Your task to perform on an android device: make emails show in primary in the gmail app Image 0: 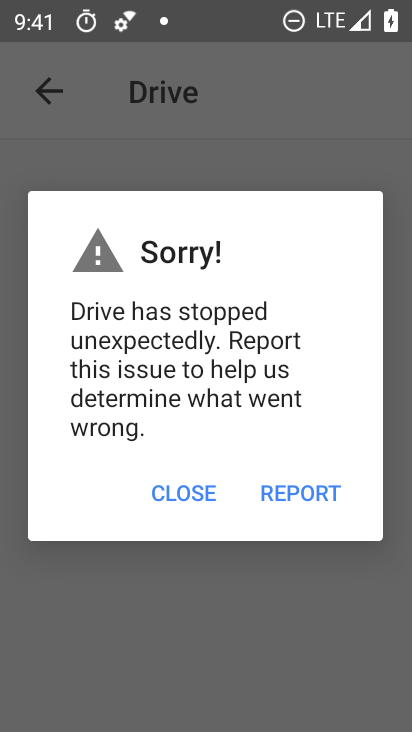
Step 0: press home button
Your task to perform on an android device: make emails show in primary in the gmail app Image 1: 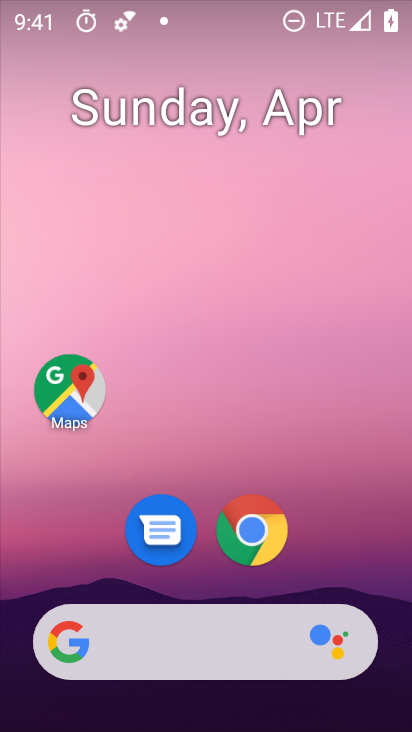
Step 1: drag from (388, 597) to (410, 663)
Your task to perform on an android device: make emails show in primary in the gmail app Image 2: 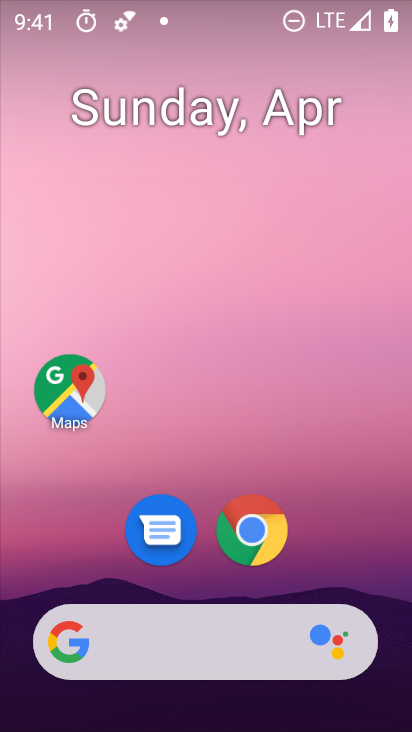
Step 2: drag from (402, 435) to (379, 0)
Your task to perform on an android device: make emails show in primary in the gmail app Image 3: 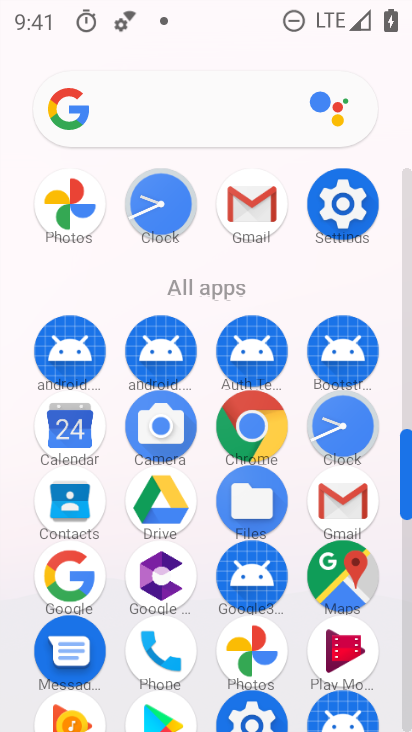
Step 3: click (251, 210)
Your task to perform on an android device: make emails show in primary in the gmail app Image 4: 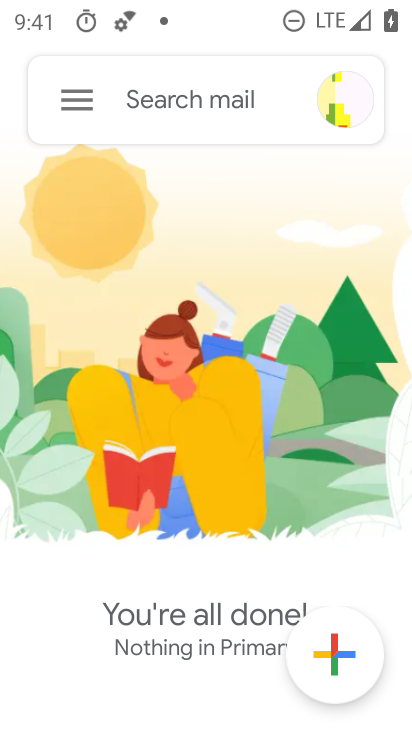
Step 4: click (70, 106)
Your task to perform on an android device: make emails show in primary in the gmail app Image 5: 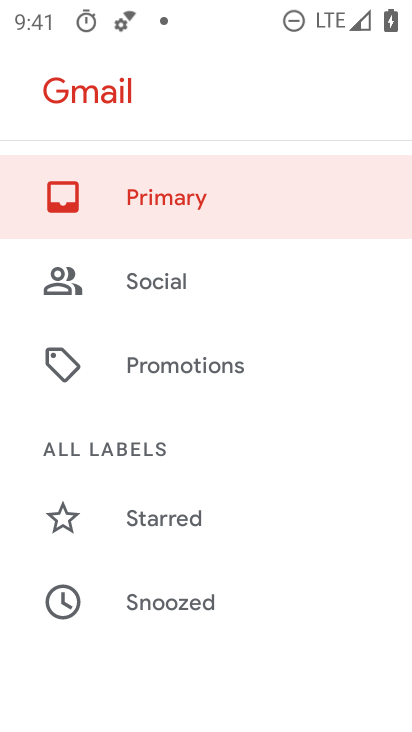
Step 5: drag from (241, 432) to (230, 105)
Your task to perform on an android device: make emails show in primary in the gmail app Image 6: 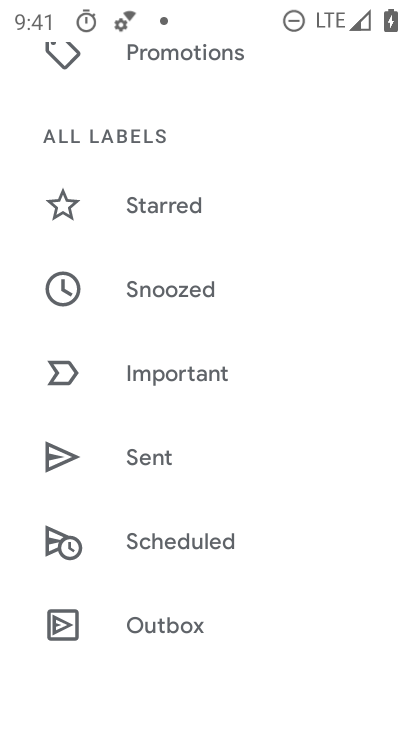
Step 6: drag from (340, 552) to (335, 182)
Your task to perform on an android device: make emails show in primary in the gmail app Image 7: 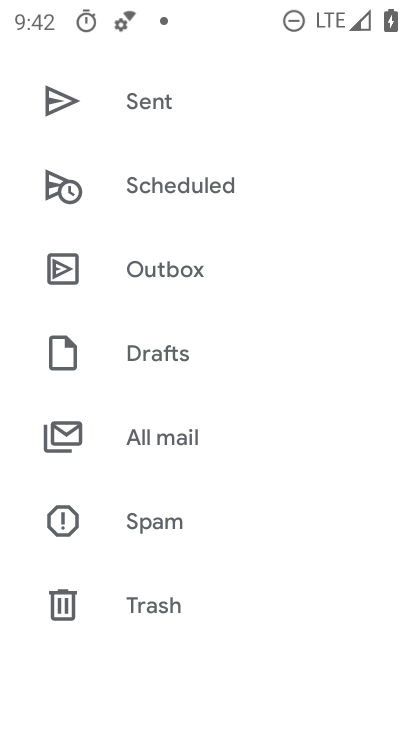
Step 7: drag from (235, 600) to (239, 161)
Your task to perform on an android device: make emails show in primary in the gmail app Image 8: 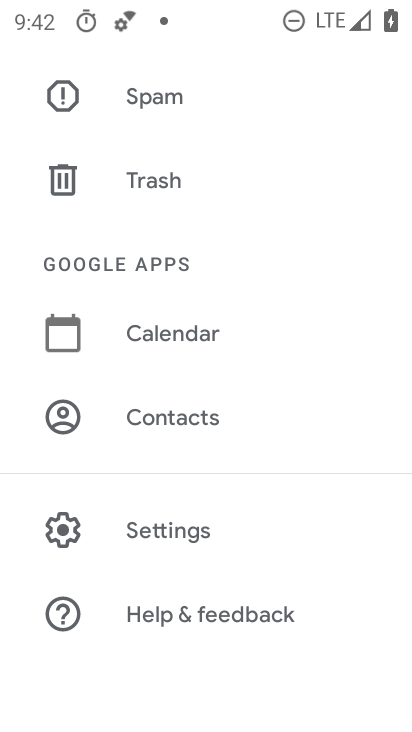
Step 8: click (182, 531)
Your task to perform on an android device: make emails show in primary in the gmail app Image 9: 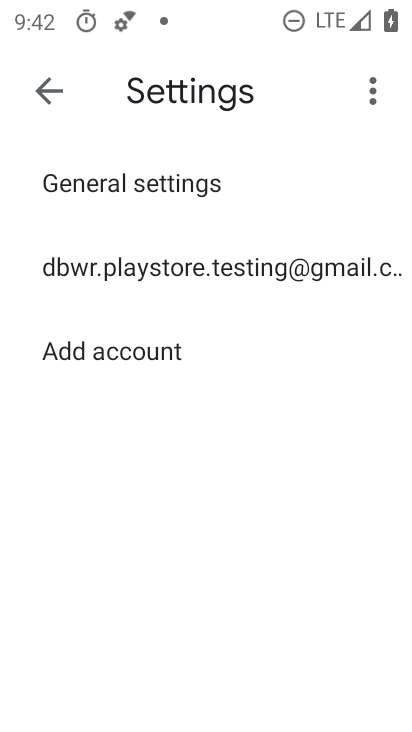
Step 9: click (144, 266)
Your task to perform on an android device: make emails show in primary in the gmail app Image 10: 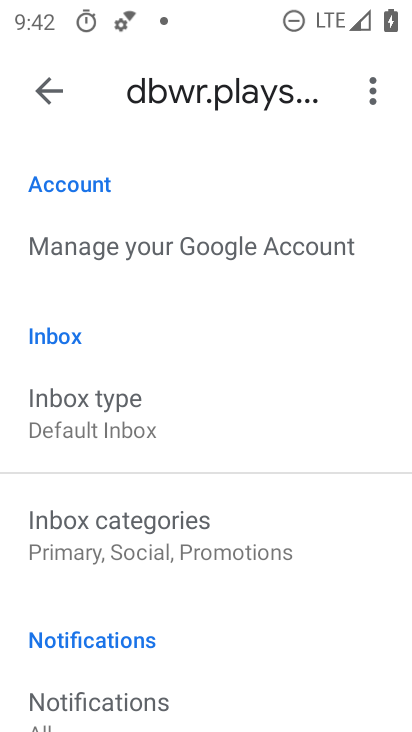
Step 10: click (127, 543)
Your task to perform on an android device: make emails show in primary in the gmail app Image 11: 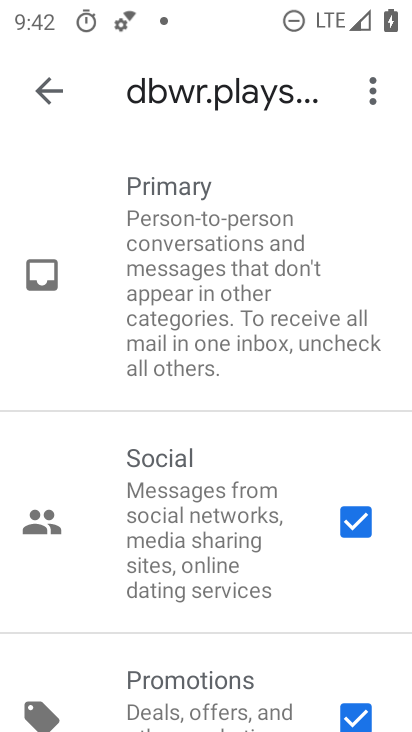
Step 11: click (347, 526)
Your task to perform on an android device: make emails show in primary in the gmail app Image 12: 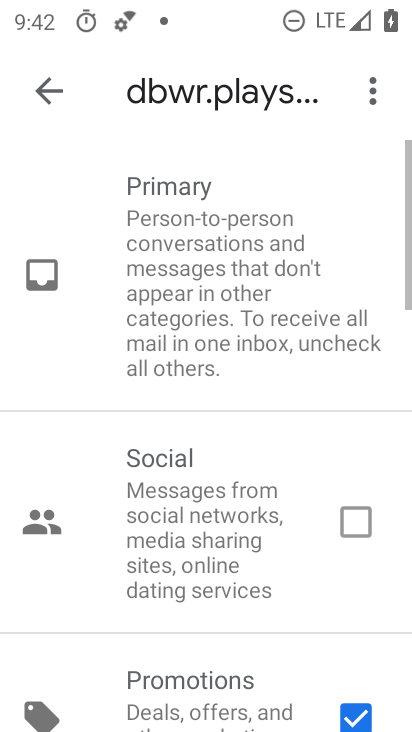
Step 12: drag from (166, 581) to (188, 247)
Your task to perform on an android device: make emails show in primary in the gmail app Image 13: 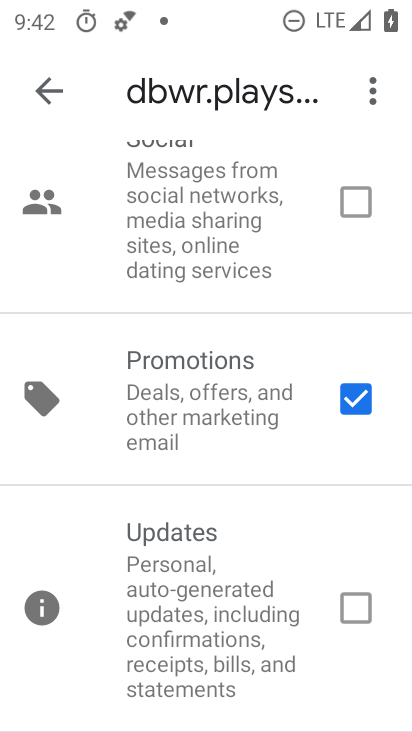
Step 13: click (362, 397)
Your task to perform on an android device: make emails show in primary in the gmail app Image 14: 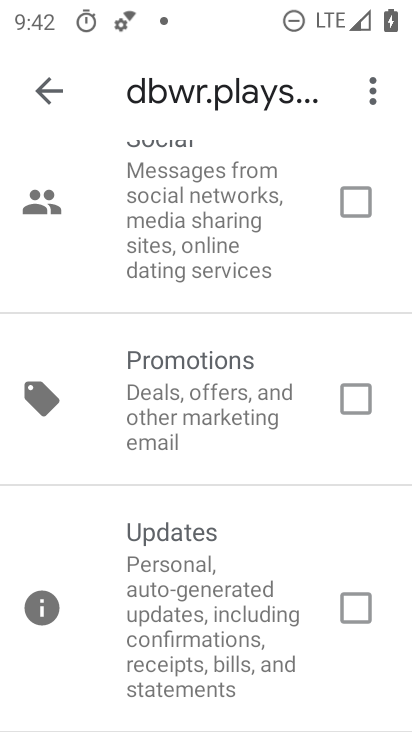
Step 14: task complete